Your task to perform on an android device: Go to display settings Image 0: 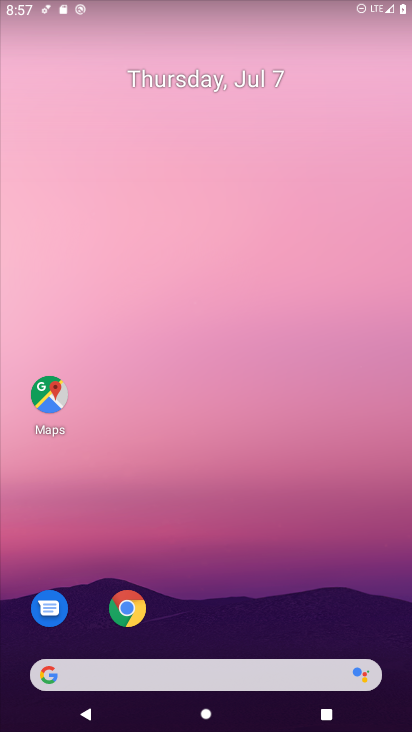
Step 0: drag from (343, 611) to (321, 64)
Your task to perform on an android device: Go to display settings Image 1: 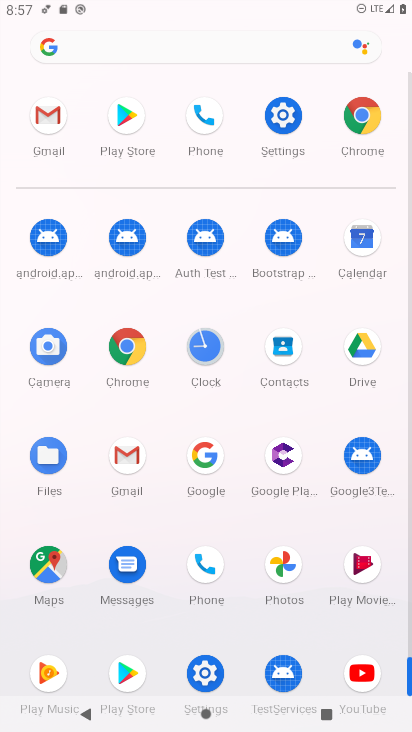
Step 1: click (203, 670)
Your task to perform on an android device: Go to display settings Image 2: 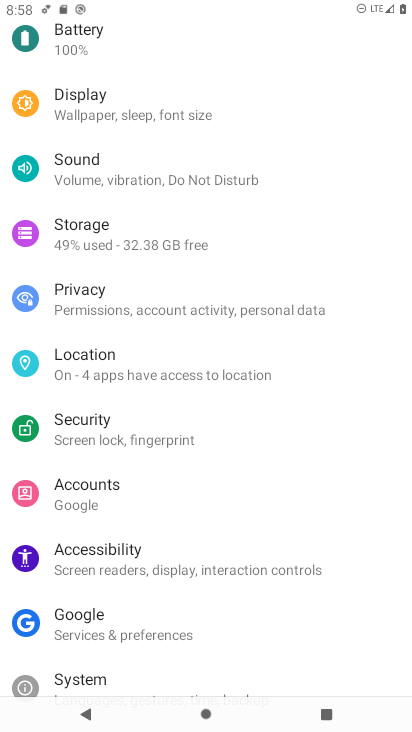
Step 2: click (96, 106)
Your task to perform on an android device: Go to display settings Image 3: 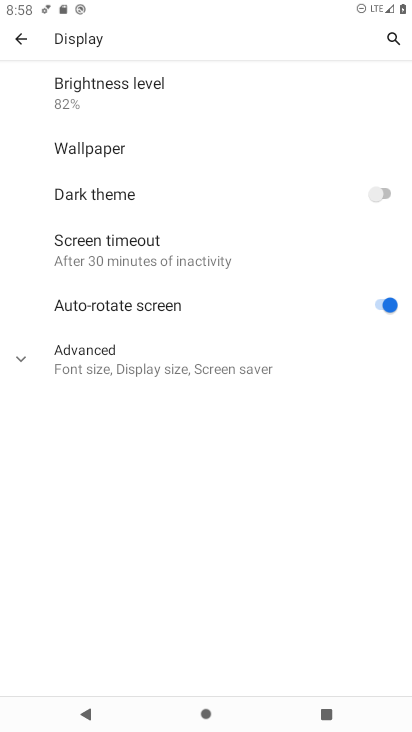
Step 3: click (24, 360)
Your task to perform on an android device: Go to display settings Image 4: 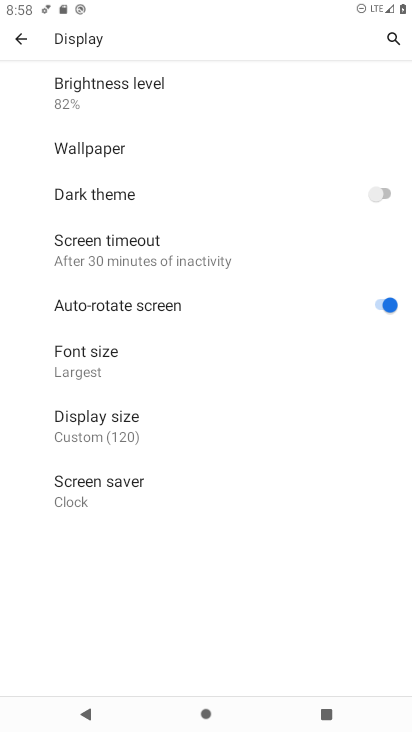
Step 4: task complete